Your task to perform on an android device: toggle pop-ups in chrome Image 0: 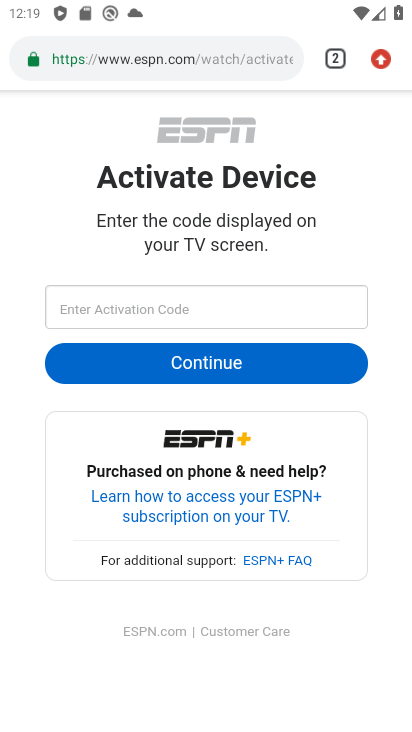
Step 0: click (379, 83)
Your task to perform on an android device: toggle pop-ups in chrome Image 1: 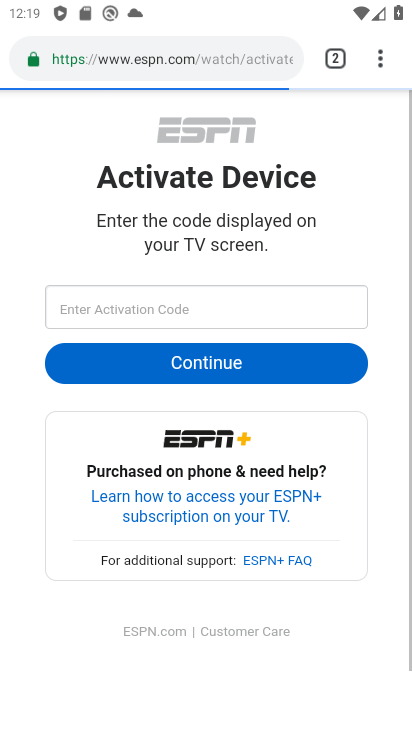
Step 1: drag from (376, 68) to (275, 628)
Your task to perform on an android device: toggle pop-ups in chrome Image 2: 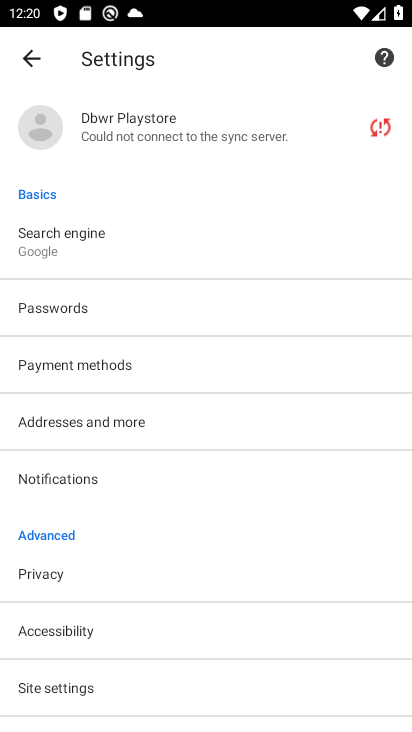
Step 2: drag from (265, 663) to (234, 187)
Your task to perform on an android device: toggle pop-ups in chrome Image 3: 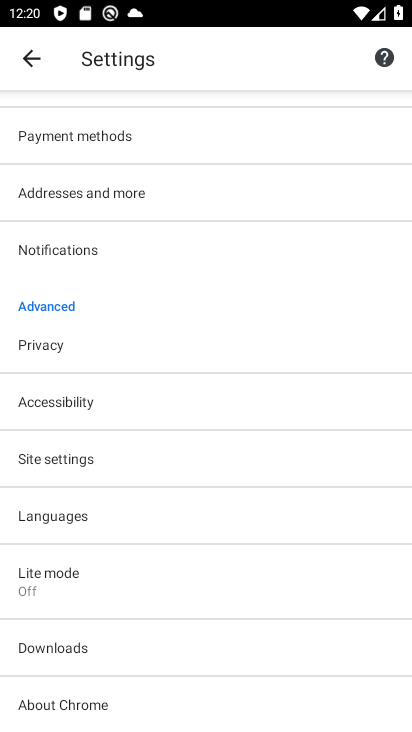
Step 3: click (143, 473)
Your task to perform on an android device: toggle pop-ups in chrome Image 4: 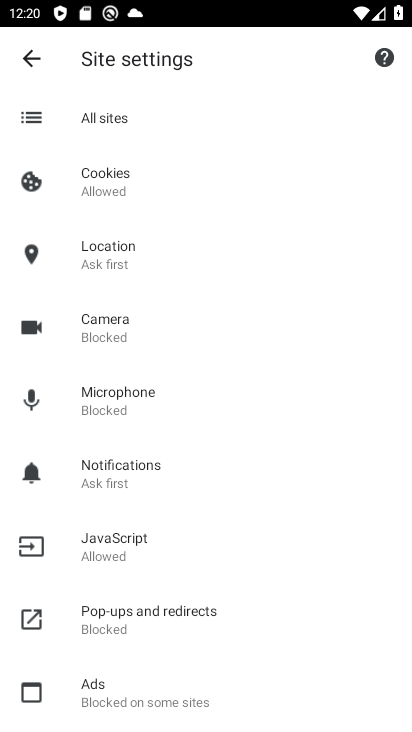
Step 4: click (198, 623)
Your task to perform on an android device: toggle pop-ups in chrome Image 5: 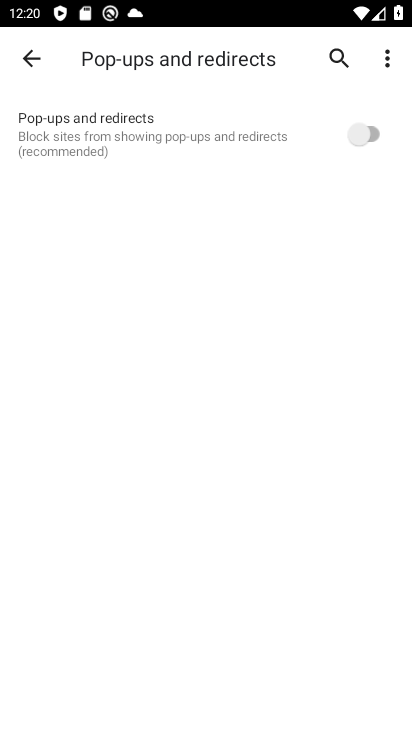
Step 5: click (372, 135)
Your task to perform on an android device: toggle pop-ups in chrome Image 6: 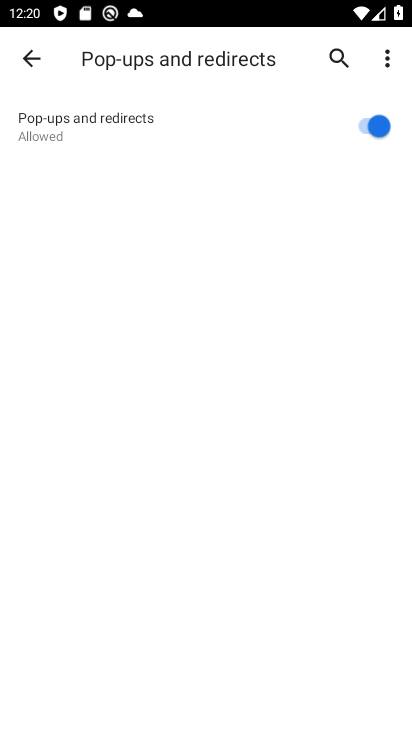
Step 6: task complete